Your task to perform on an android device: Open the Play Movies app and select the watchlist tab. Image 0: 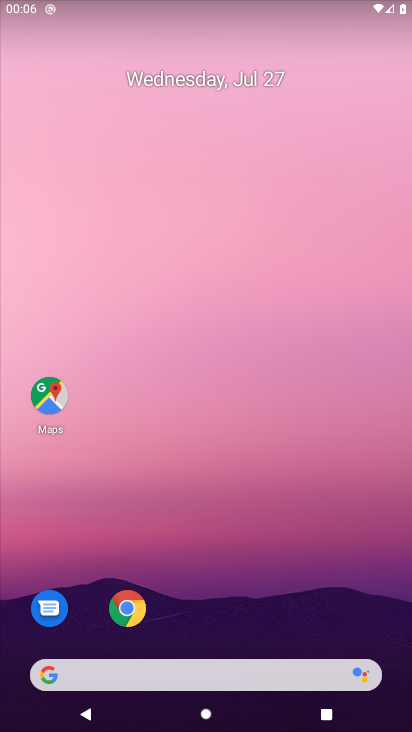
Step 0: press home button
Your task to perform on an android device: Open the Play Movies app and select the watchlist tab. Image 1: 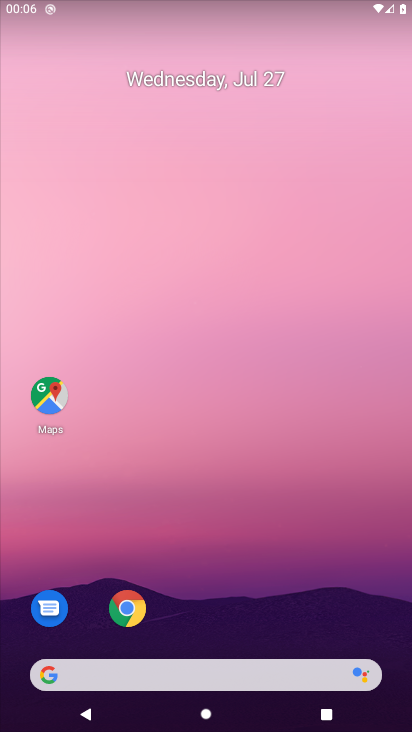
Step 1: drag from (298, 635) to (326, 170)
Your task to perform on an android device: Open the Play Movies app and select the watchlist tab. Image 2: 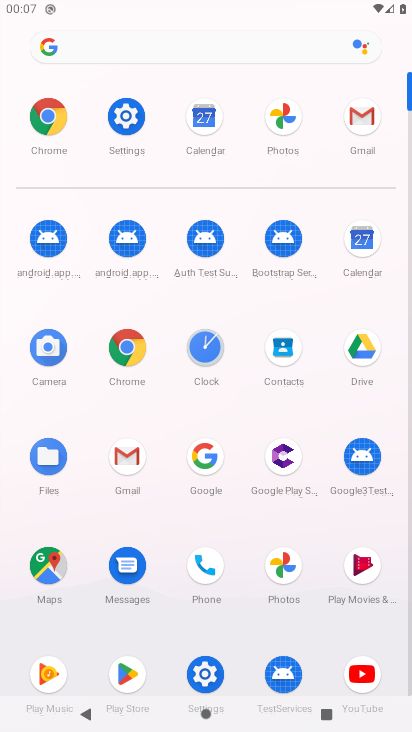
Step 2: click (363, 560)
Your task to perform on an android device: Open the Play Movies app and select the watchlist tab. Image 3: 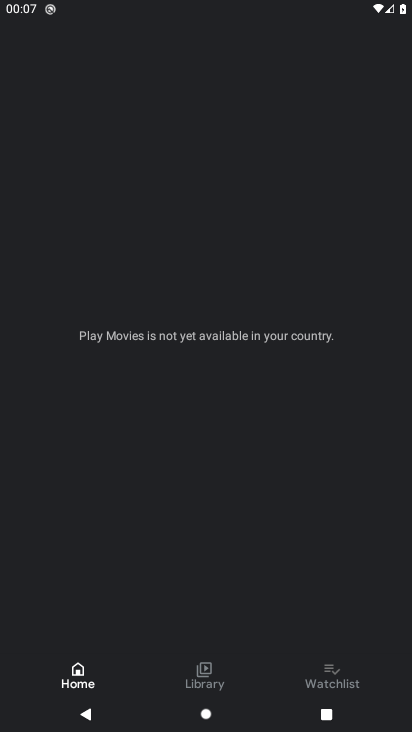
Step 3: click (337, 672)
Your task to perform on an android device: Open the Play Movies app and select the watchlist tab. Image 4: 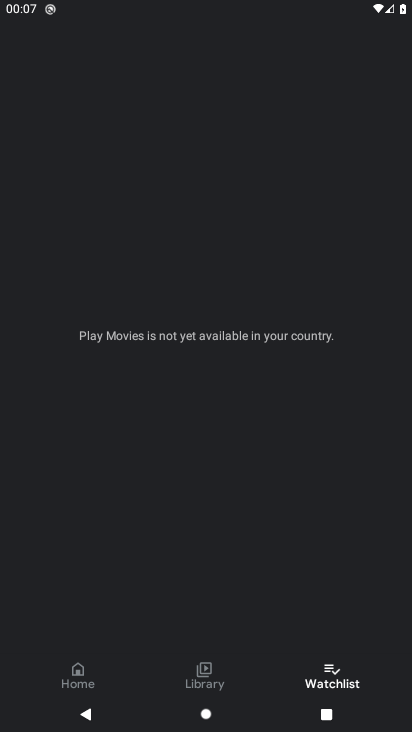
Step 4: task complete